Your task to perform on an android device: clear all cookies in the chrome app Image 0: 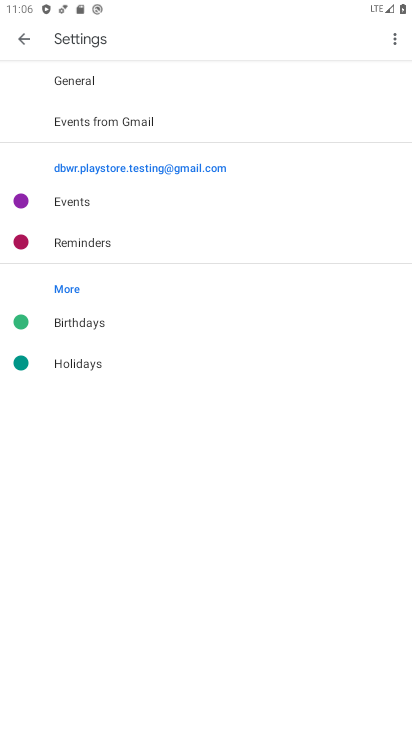
Step 0: press home button
Your task to perform on an android device: clear all cookies in the chrome app Image 1: 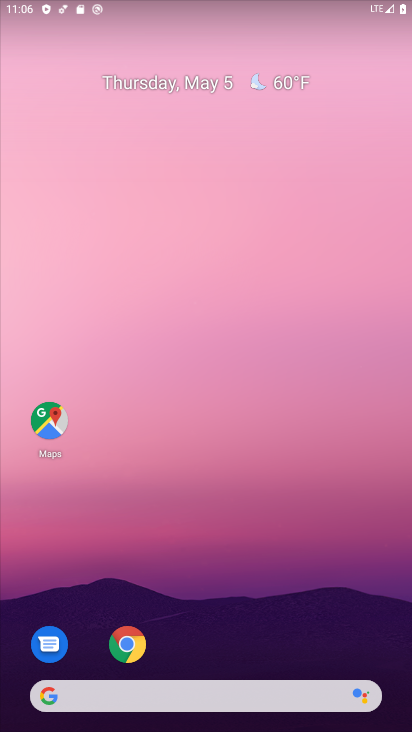
Step 1: drag from (384, 640) to (394, 152)
Your task to perform on an android device: clear all cookies in the chrome app Image 2: 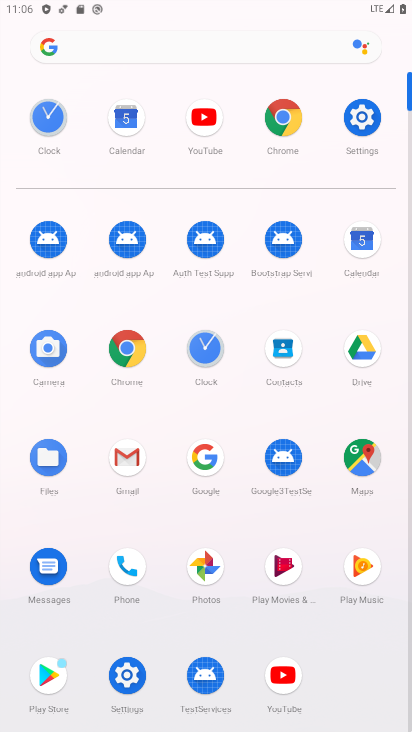
Step 2: click (123, 354)
Your task to perform on an android device: clear all cookies in the chrome app Image 3: 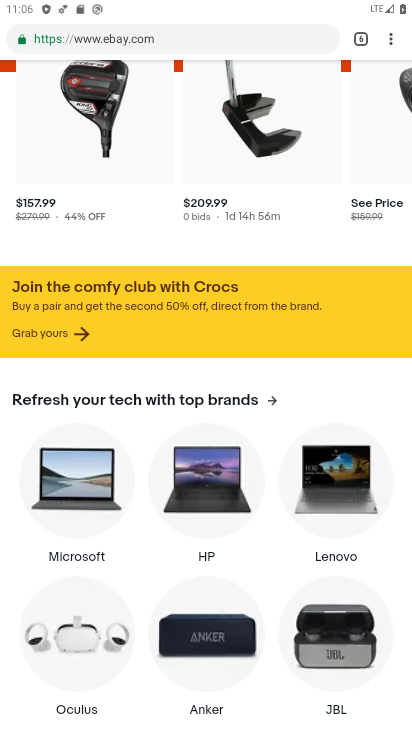
Step 3: drag from (149, 173) to (151, 496)
Your task to perform on an android device: clear all cookies in the chrome app Image 4: 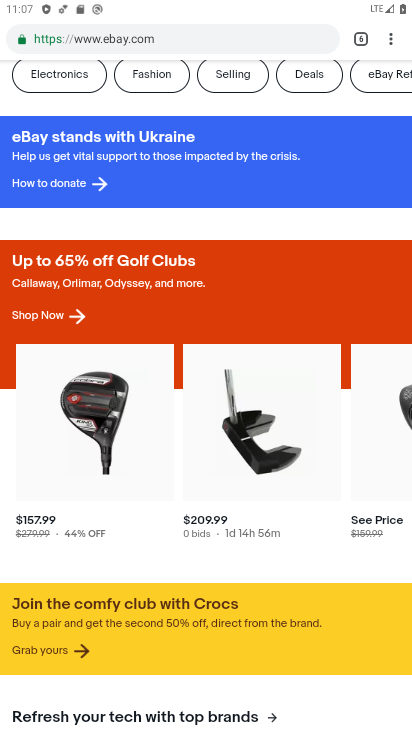
Step 4: drag from (388, 51) to (284, 211)
Your task to perform on an android device: clear all cookies in the chrome app Image 5: 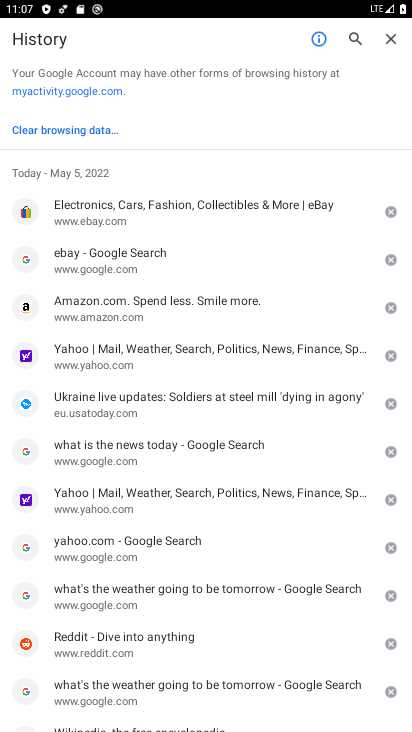
Step 5: click (63, 136)
Your task to perform on an android device: clear all cookies in the chrome app Image 6: 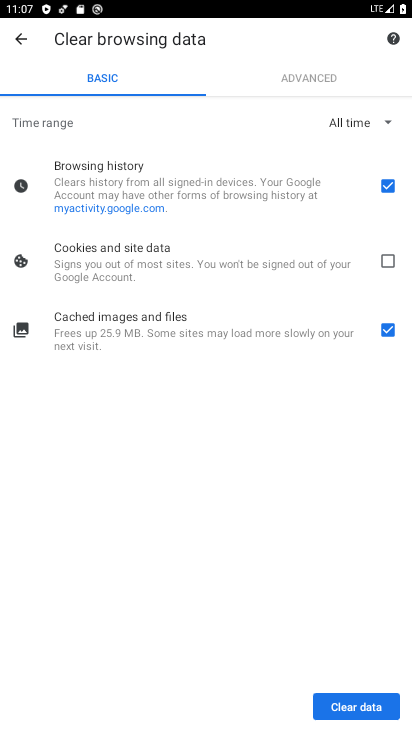
Step 6: click (382, 264)
Your task to perform on an android device: clear all cookies in the chrome app Image 7: 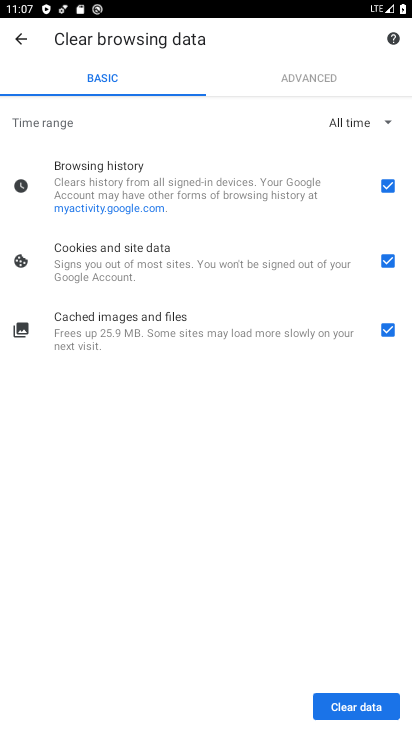
Step 7: click (381, 326)
Your task to perform on an android device: clear all cookies in the chrome app Image 8: 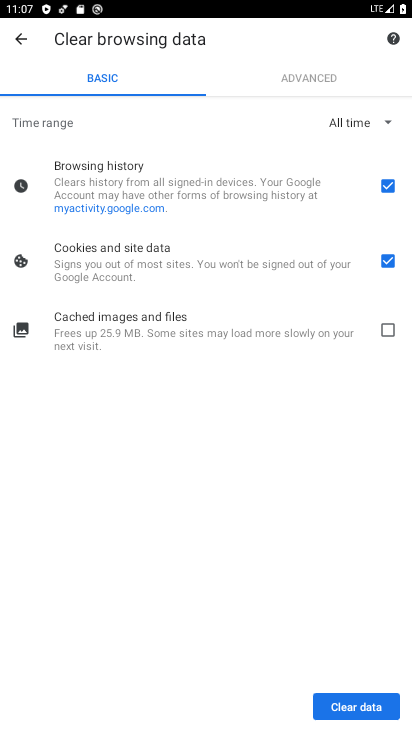
Step 8: click (384, 184)
Your task to perform on an android device: clear all cookies in the chrome app Image 9: 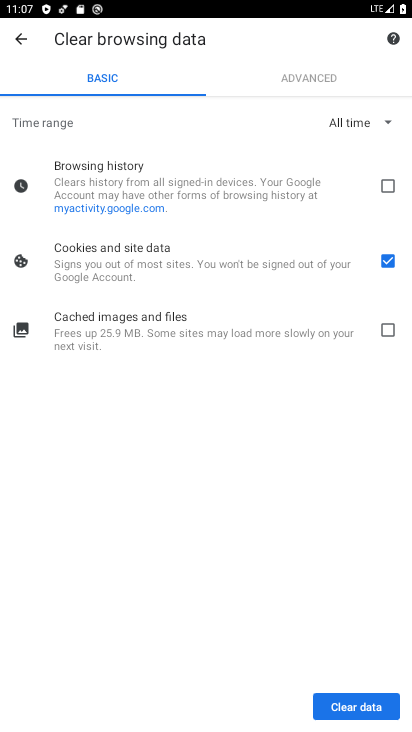
Step 9: click (335, 705)
Your task to perform on an android device: clear all cookies in the chrome app Image 10: 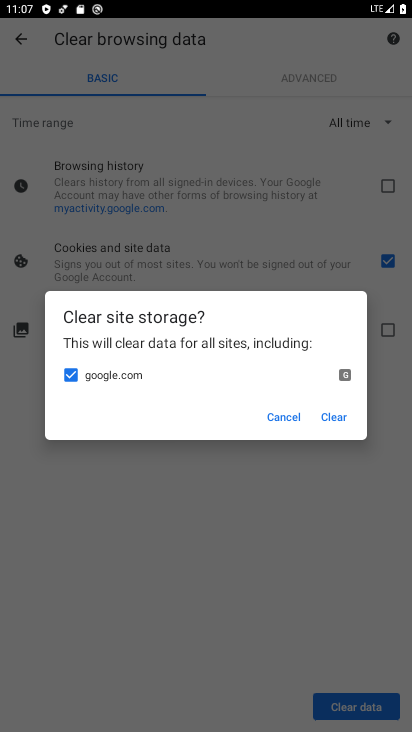
Step 10: click (327, 420)
Your task to perform on an android device: clear all cookies in the chrome app Image 11: 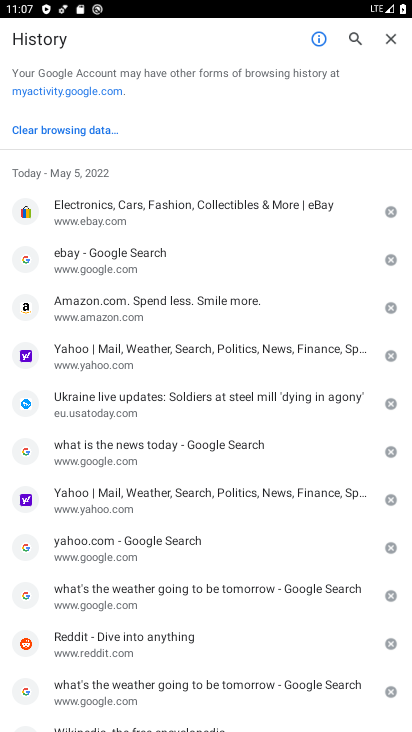
Step 11: task complete